Your task to perform on an android device: turn off priority inbox in the gmail app Image 0: 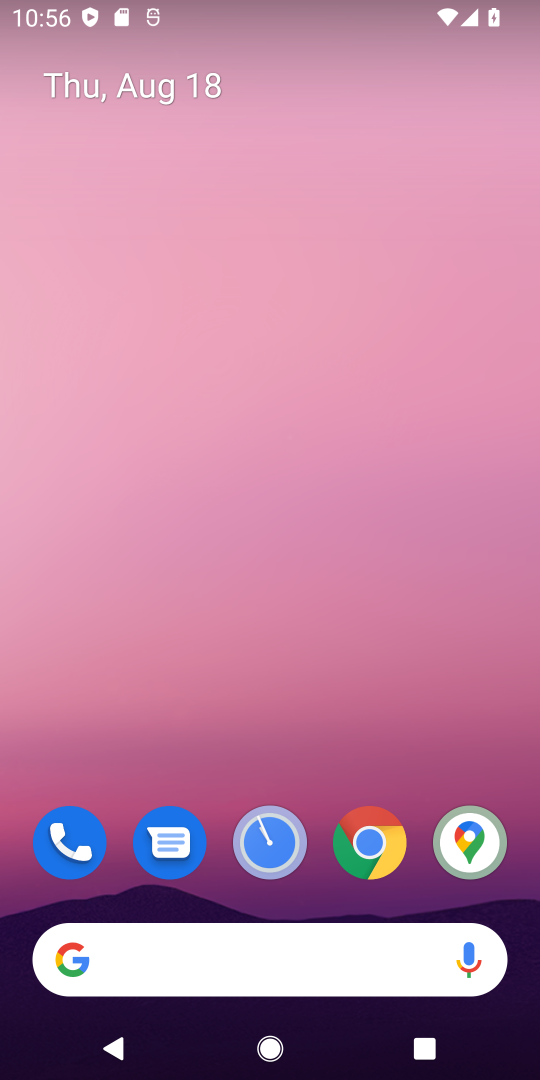
Step 0: drag from (244, 721) to (178, 311)
Your task to perform on an android device: turn off priority inbox in the gmail app Image 1: 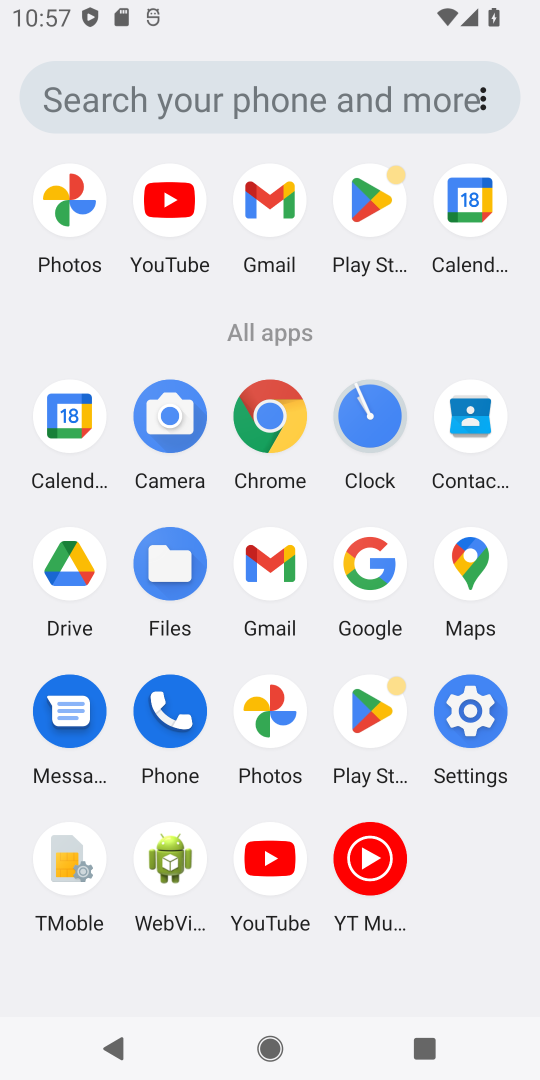
Step 1: click (261, 171)
Your task to perform on an android device: turn off priority inbox in the gmail app Image 2: 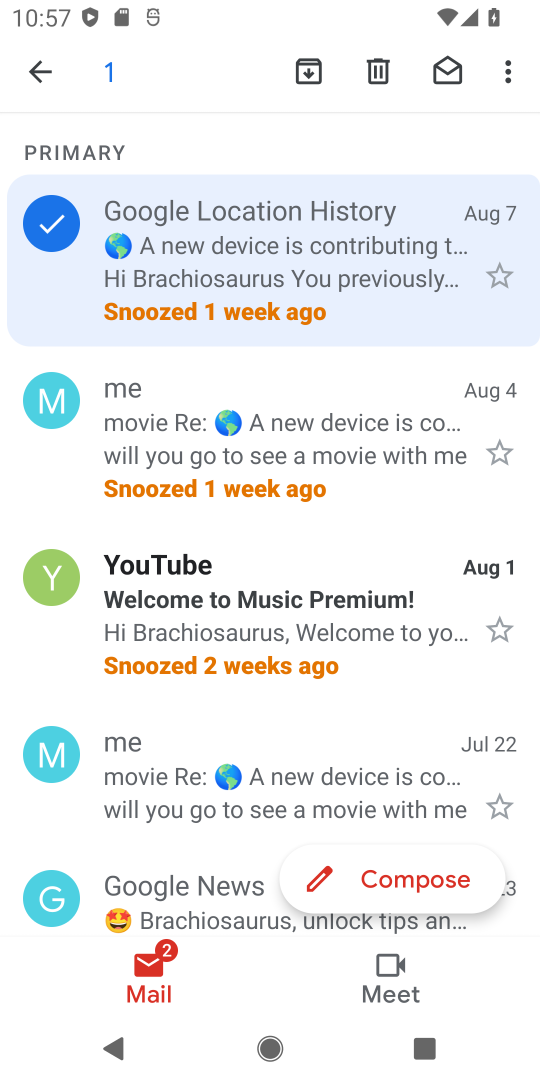
Step 2: click (48, 80)
Your task to perform on an android device: turn off priority inbox in the gmail app Image 3: 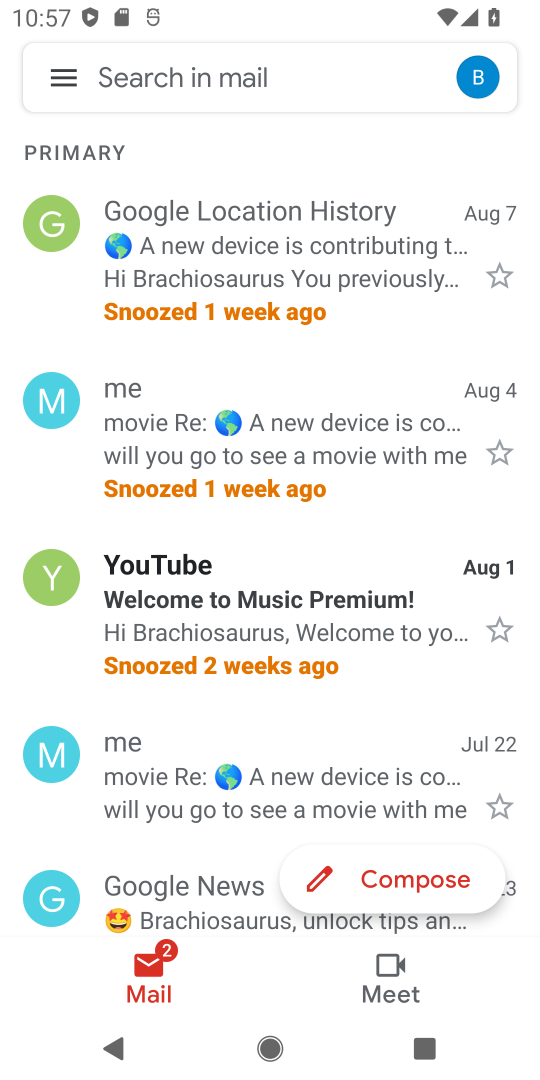
Step 3: click (74, 84)
Your task to perform on an android device: turn off priority inbox in the gmail app Image 4: 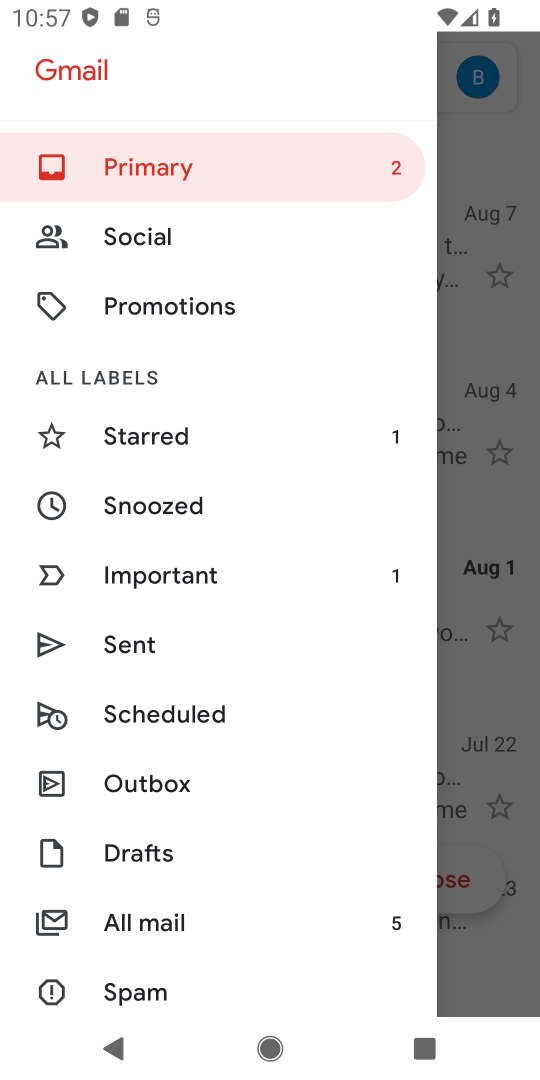
Step 4: drag from (244, 962) to (189, 276)
Your task to perform on an android device: turn off priority inbox in the gmail app Image 5: 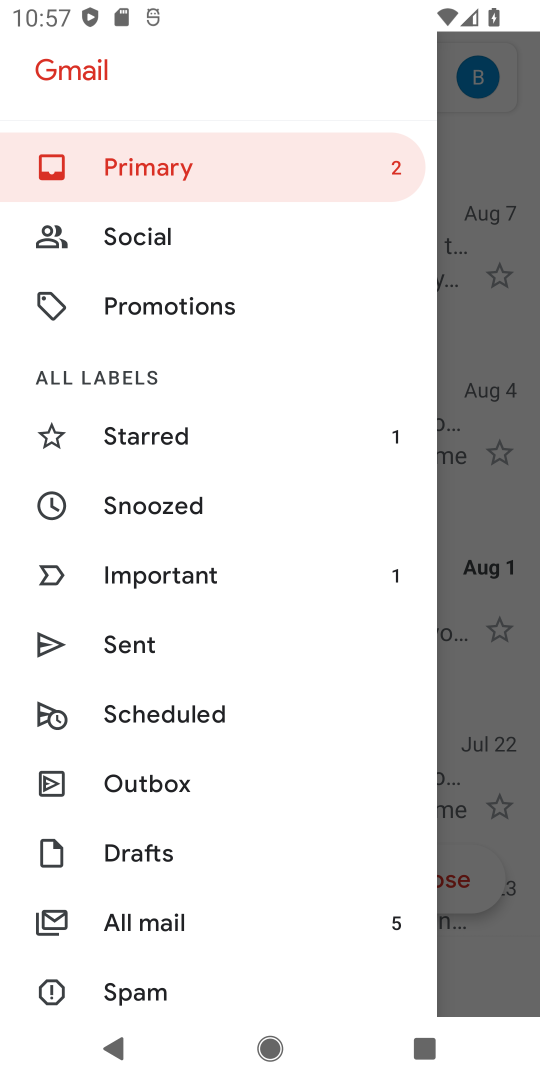
Step 5: drag from (214, 980) to (239, 315)
Your task to perform on an android device: turn off priority inbox in the gmail app Image 6: 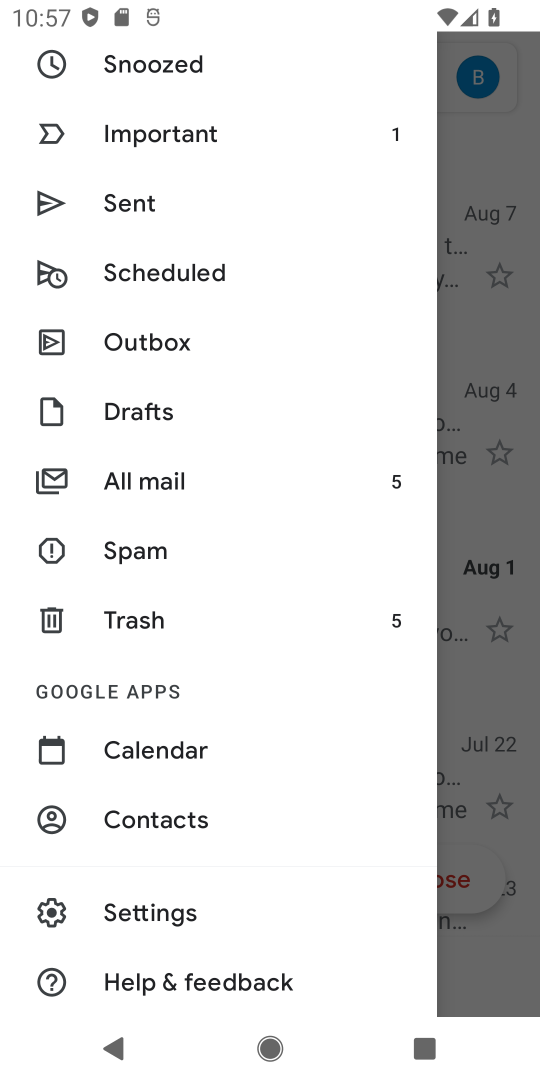
Step 6: click (195, 918)
Your task to perform on an android device: turn off priority inbox in the gmail app Image 7: 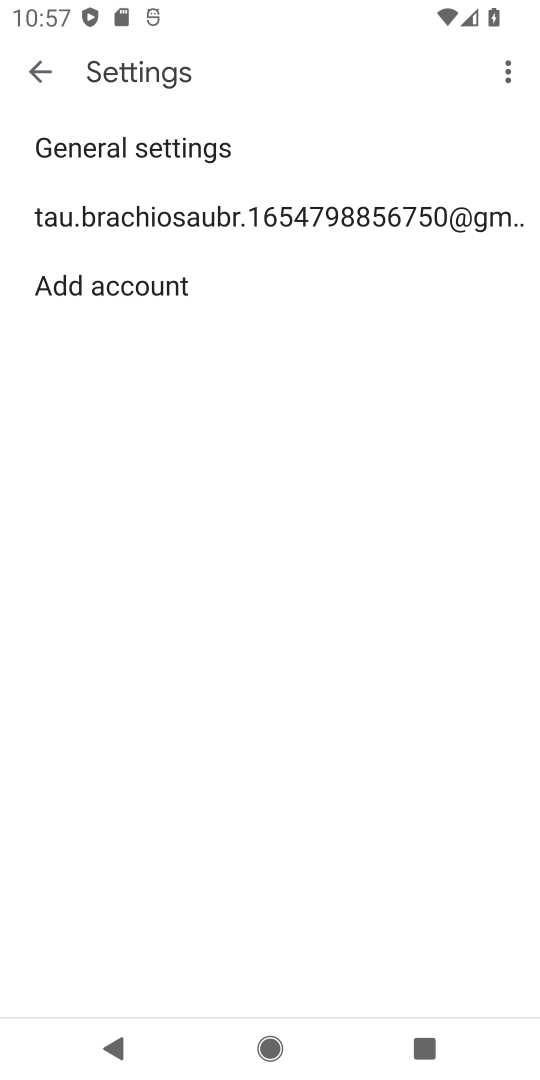
Step 7: click (217, 218)
Your task to perform on an android device: turn off priority inbox in the gmail app Image 8: 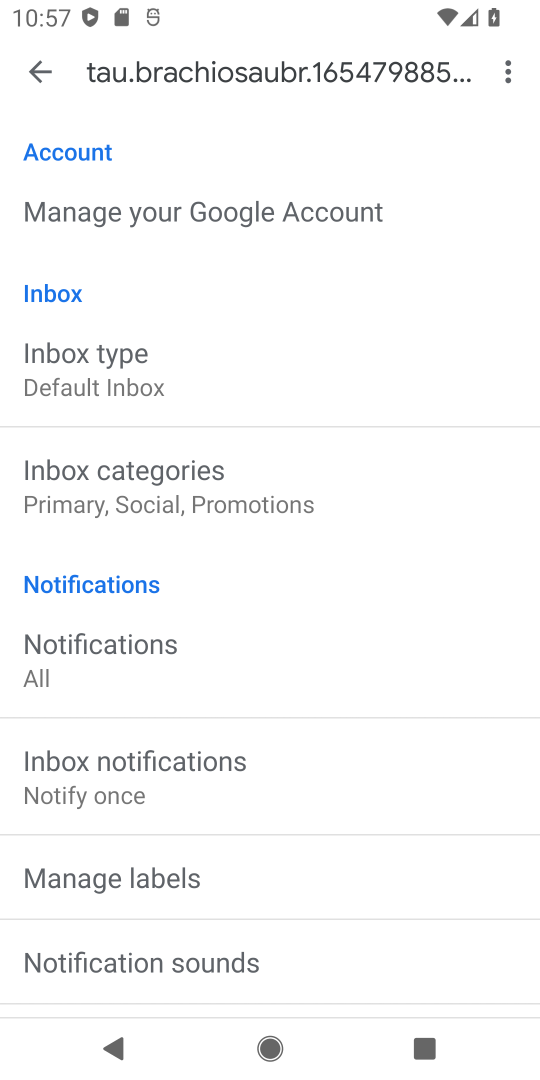
Step 8: click (64, 345)
Your task to perform on an android device: turn off priority inbox in the gmail app Image 9: 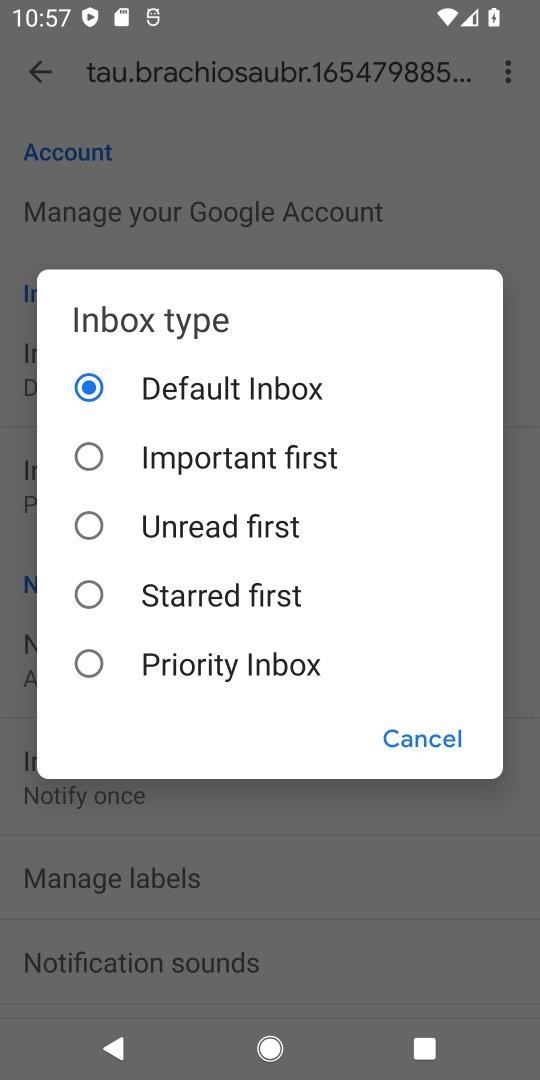
Step 9: task complete